Your task to perform on an android device: delete location history Image 0: 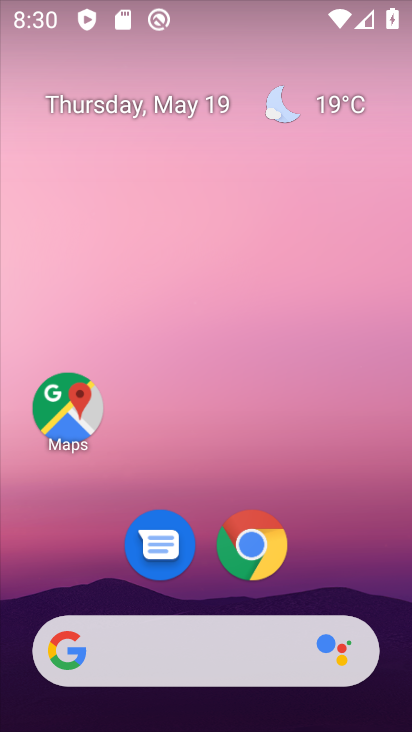
Step 0: drag from (353, 541) to (330, 243)
Your task to perform on an android device: delete location history Image 1: 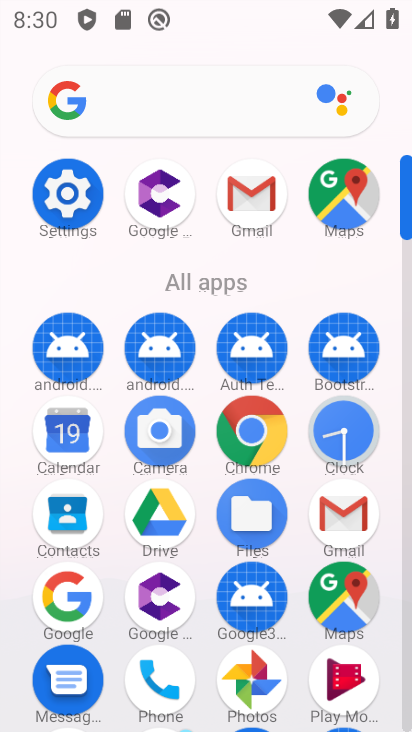
Step 1: click (71, 208)
Your task to perform on an android device: delete location history Image 2: 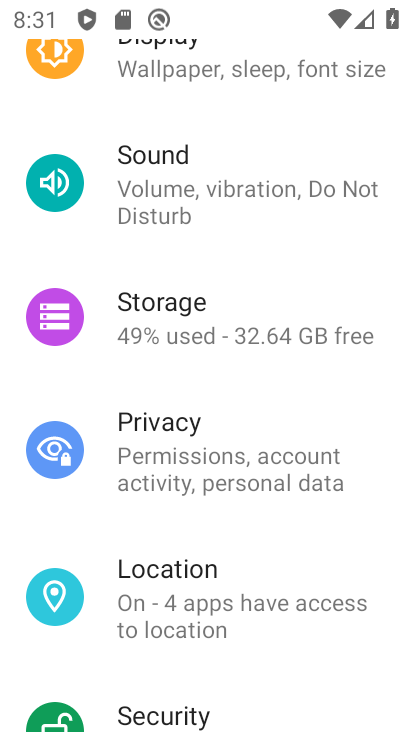
Step 2: drag from (288, 191) to (248, 468)
Your task to perform on an android device: delete location history Image 3: 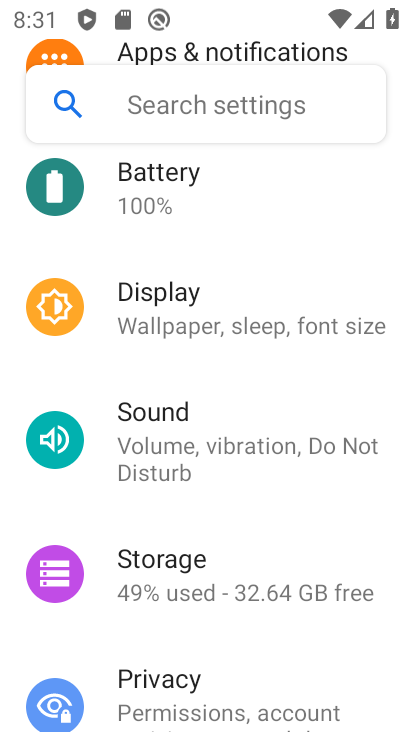
Step 3: drag from (236, 570) to (249, 412)
Your task to perform on an android device: delete location history Image 4: 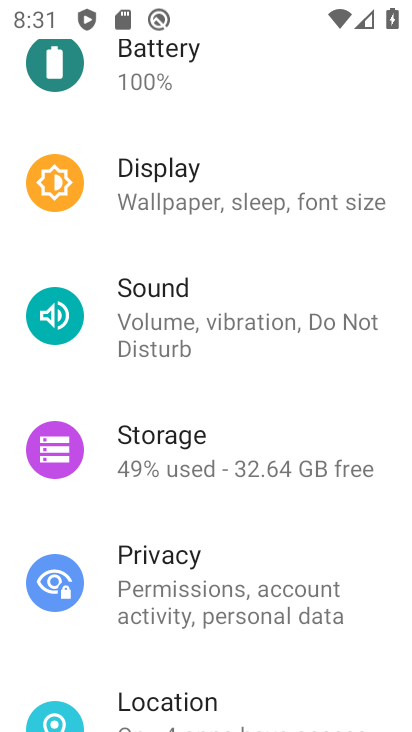
Step 4: click (213, 713)
Your task to perform on an android device: delete location history Image 5: 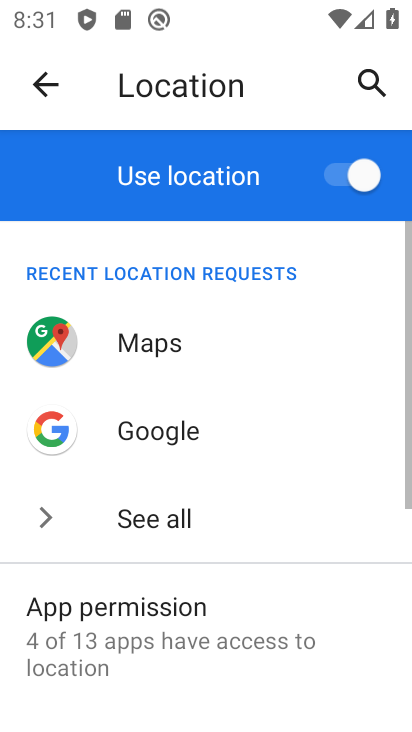
Step 5: drag from (210, 582) to (236, 469)
Your task to perform on an android device: delete location history Image 6: 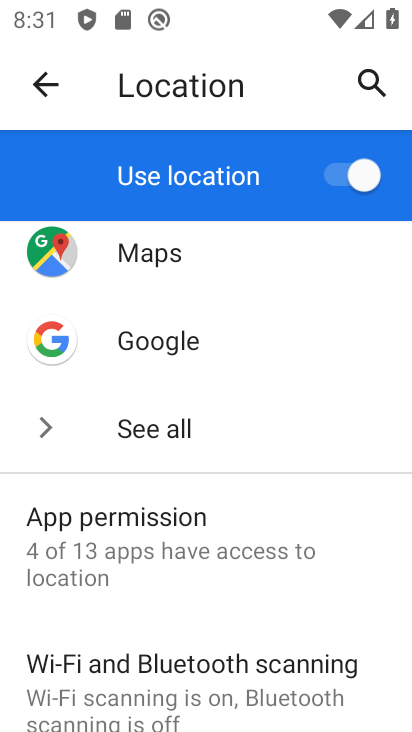
Step 6: drag from (241, 691) to (270, 439)
Your task to perform on an android device: delete location history Image 7: 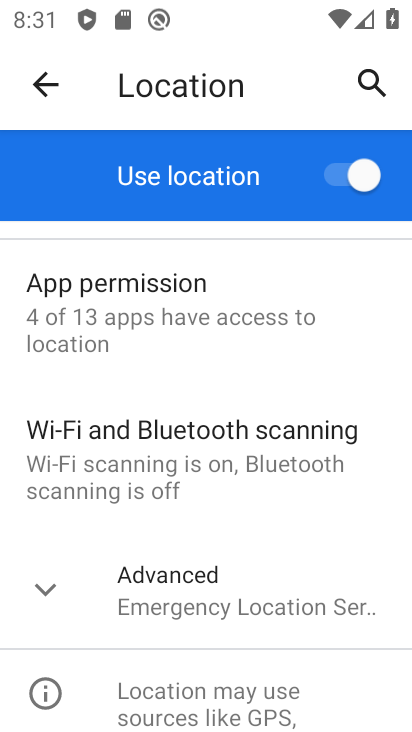
Step 7: click (243, 575)
Your task to perform on an android device: delete location history Image 8: 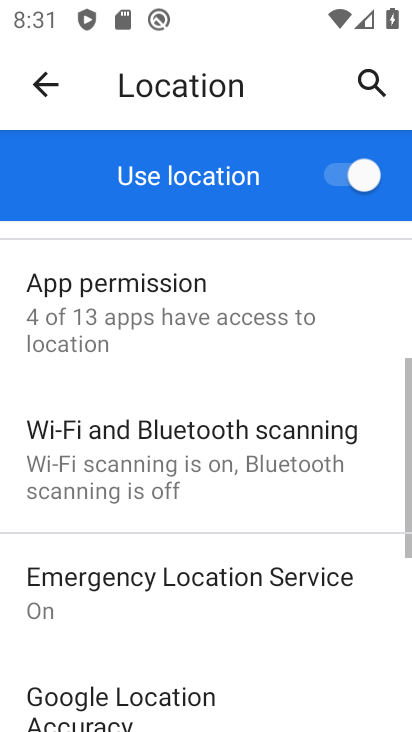
Step 8: drag from (230, 620) to (248, 368)
Your task to perform on an android device: delete location history Image 9: 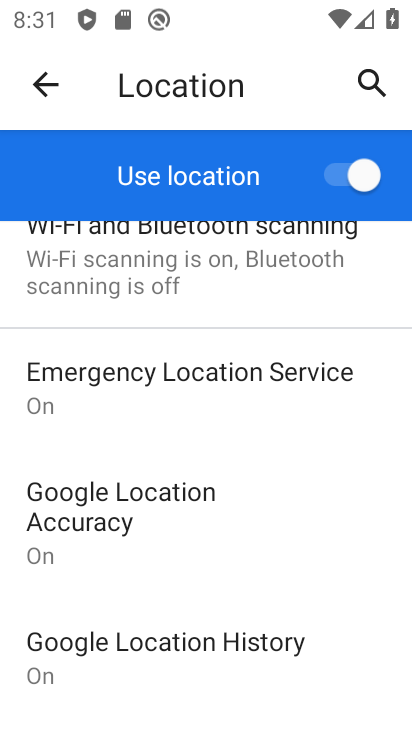
Step 9: click (170, 672)
Your task to perform on an android device: delete location history Image 10: 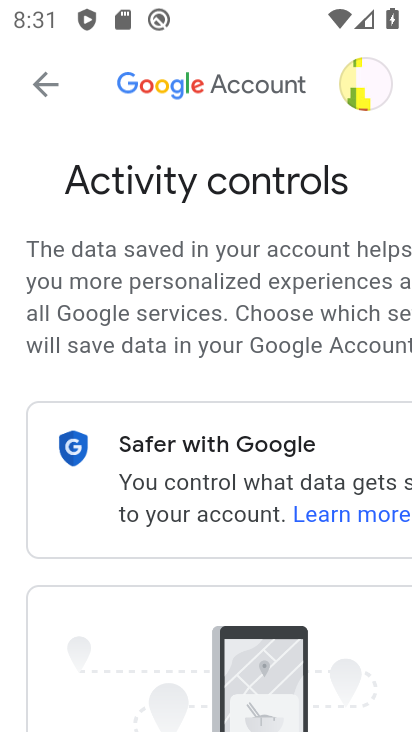
Step 10: drag from (255, 572) to (301, 378)
Your task to perform on an android device: delete location history Image 11: 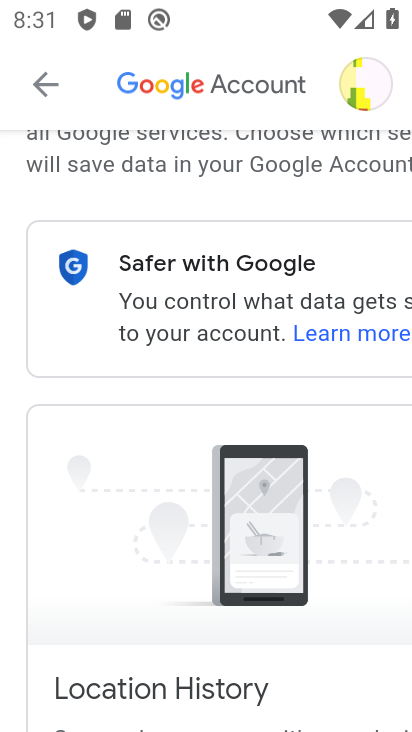
Step 11: drag from (217, 590) to (267, 262)
Your task to perform on an android device: delete location history Image 12: 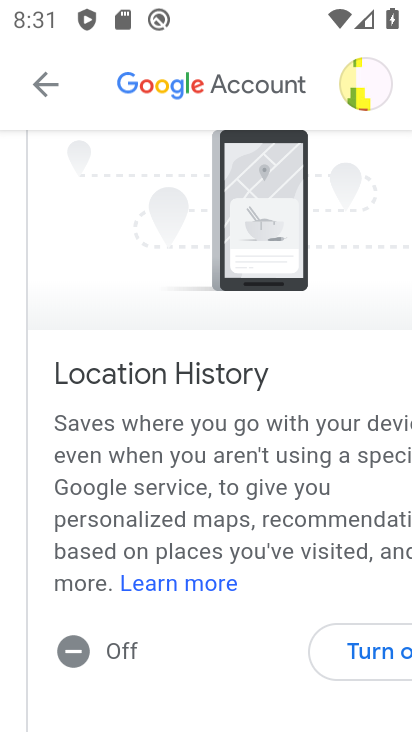
Step 12: click (353, 657)
Your task to perform on an android device: delete location history Image 13: 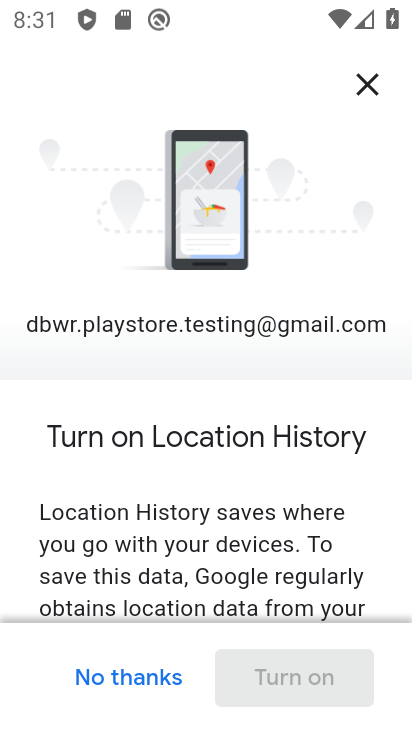
Step 13: drag from (267, 590) to (317, 230)
Your task to perform on an android device: delete location history Image 14: 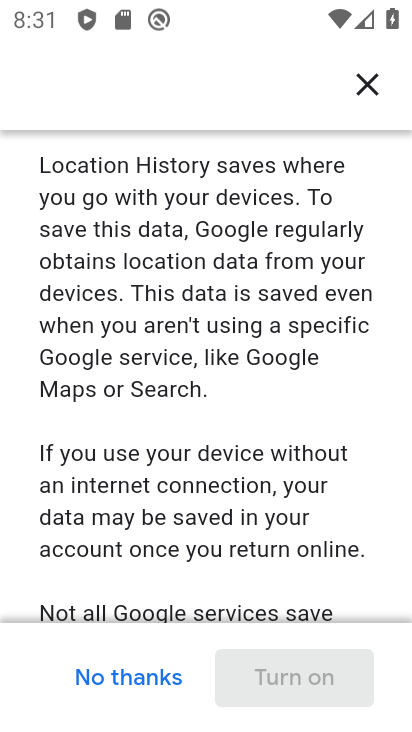
Step 14: click (343, 625)
Your task to perform on an android device: delete location history Image 15: 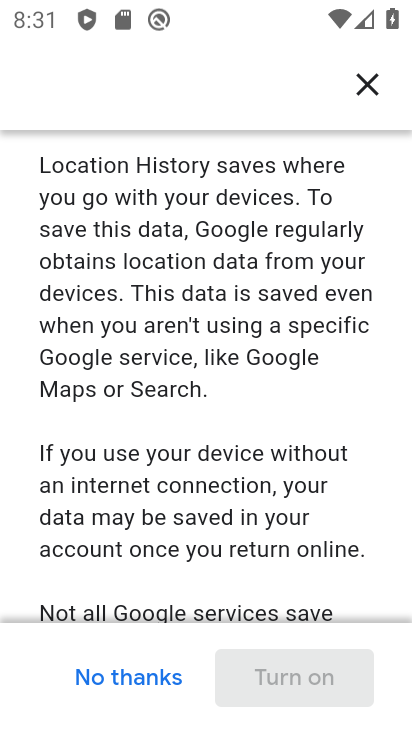
Step 15: drag from (343, 615) to (328, 294)
Your task to perform on an android device: delete location history Image 16: 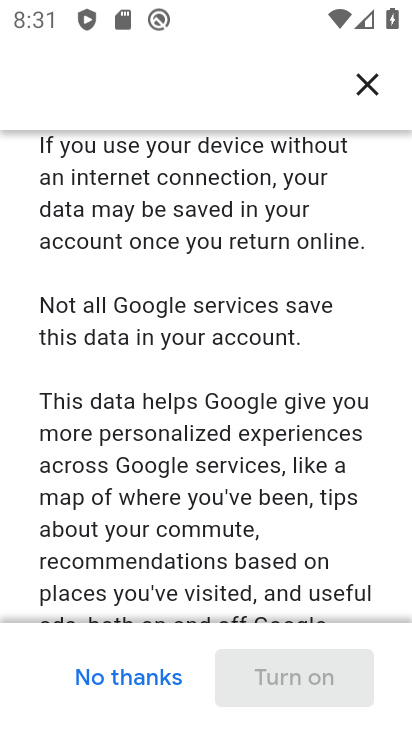
Step 16: drag from (320, 565) to (320, 272)
Your task to perform on an android device: delete location history Image 17: 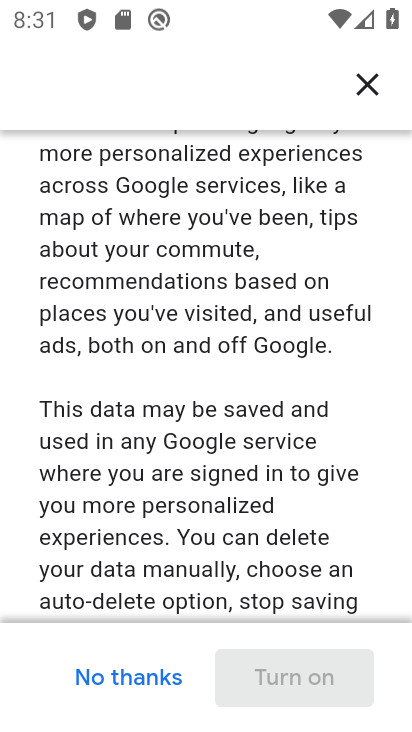
Step 17: drag from (298, 578) to (312, 165)
Your task to perform on an android device: delete location history Image 18: 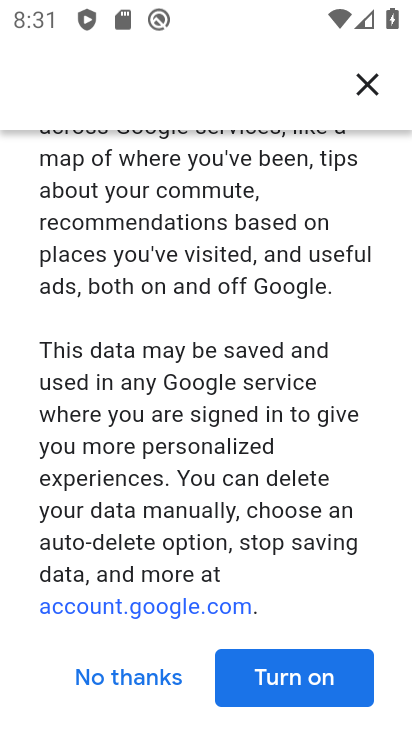
Step 18: click (291, 665)
Your task to perform on an android device: delete location history Image 19: 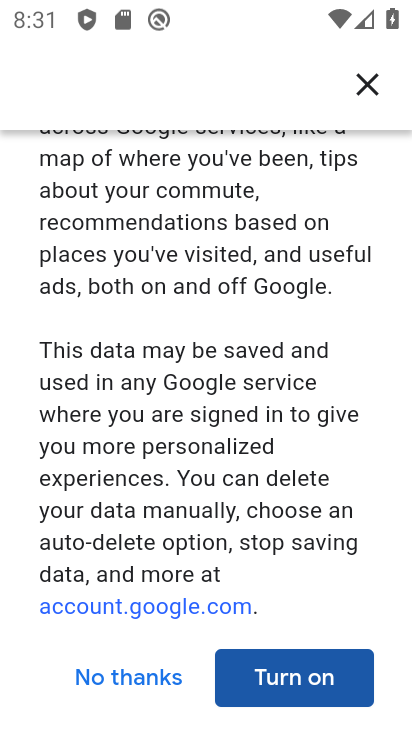
Step 19: task complete